Your task to perform on an android device: turn pop-ups on in chrome Image 0: 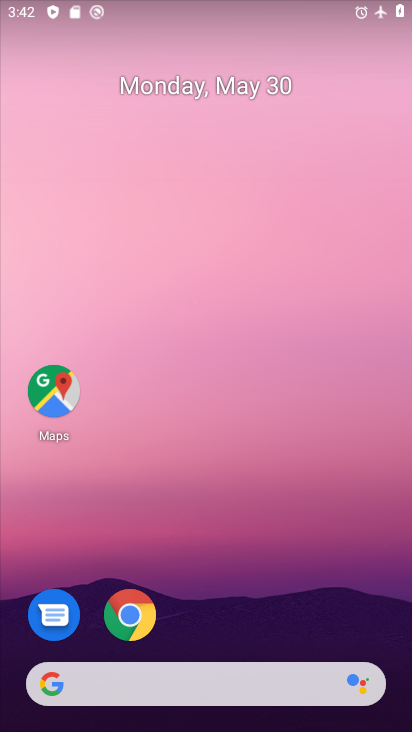
Step 0: click (125, 599)
Your task to perform on an android device: turn pop-ups on in chrome Image 1: 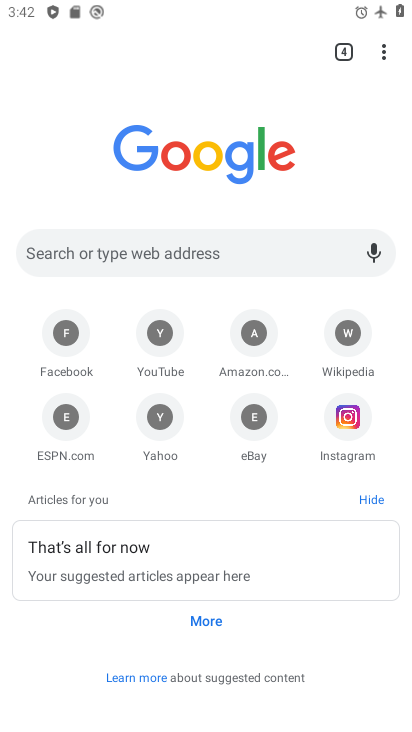
Step 1: click (383, 50)
Your task to perform on an android device: turn pop-ups on in chrome Image 2: 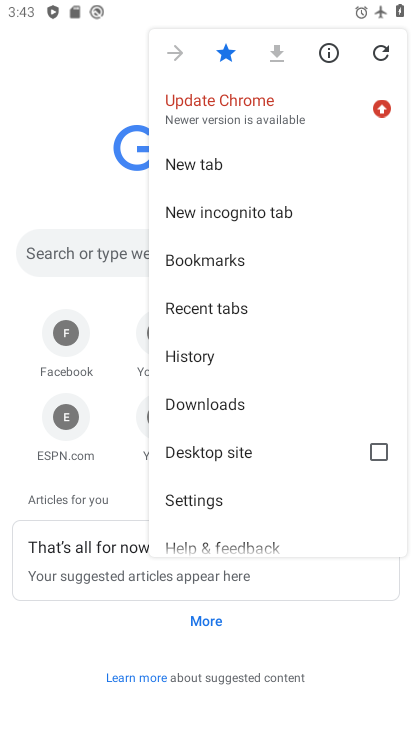
Step 2: click (232, 488)
Your task to perform on an android device: turn pop-ups on in chrome Image 3: 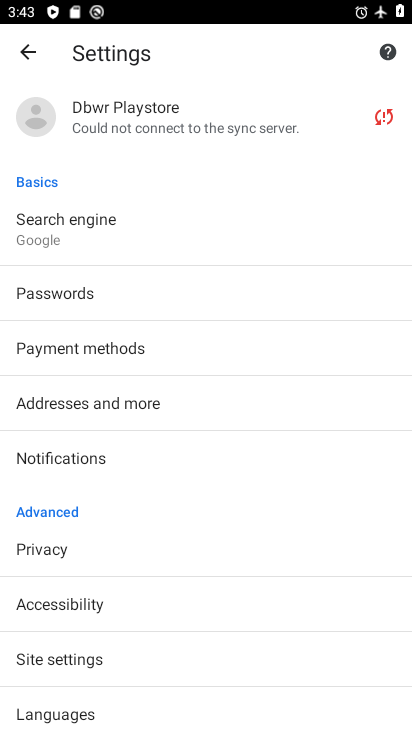
Step 3: click (178, 656)
Your task to perform on an android device: turn pop-ups on in chrome Image 4: 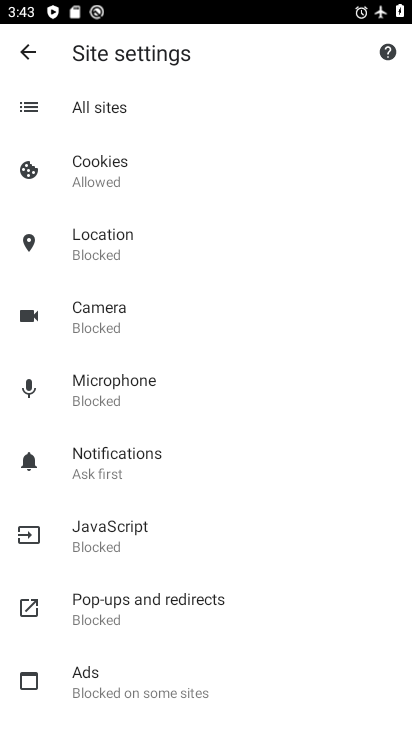
Step 4: click (187, 596)
Your task to perform on an android device: turn pop-ups on in chrome Image 5: 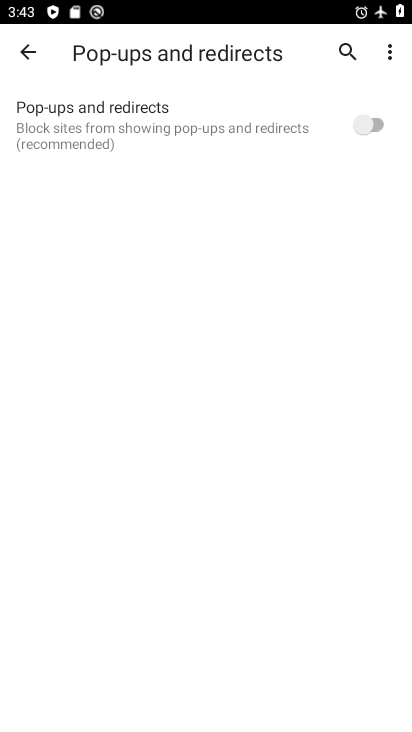
Step 5: click (375, 119)
Your task to perform on an android device: turn pop-ups on in chrome Image 6: 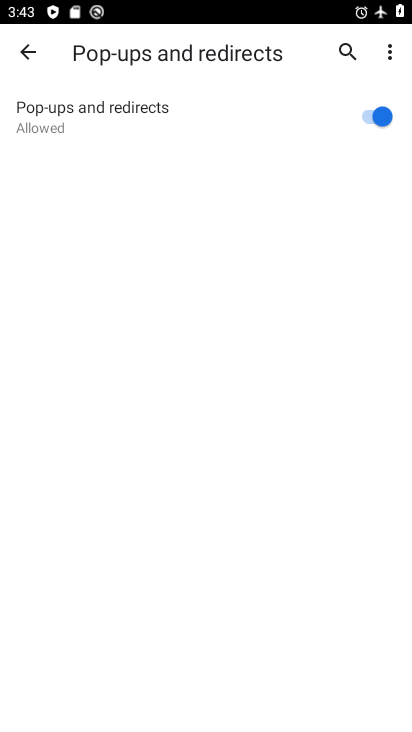
Step 6: task complete